Your task to perform on an android device: find photos in the google photos app Image 0: 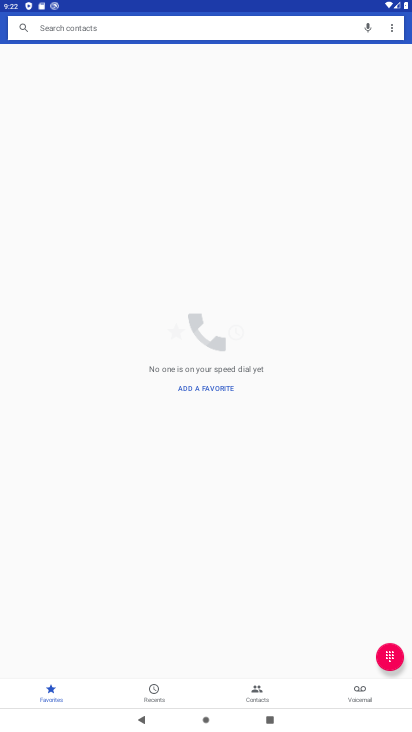
Step 0: press home button
Your task to perform on an android device: find photos in the google photos app Image 1: 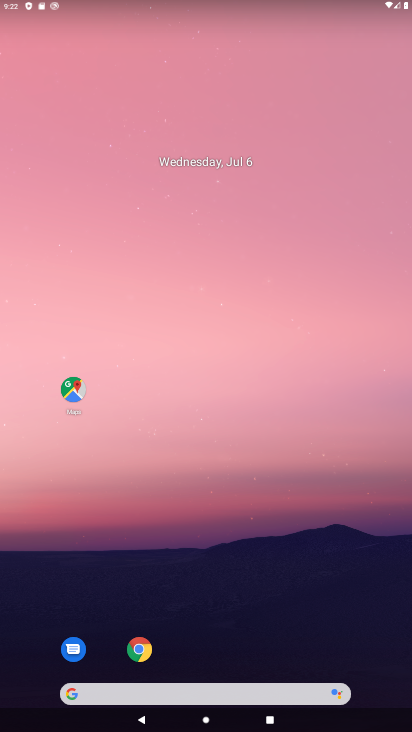
Step 1: drag from (191, 691) to (174, 104)
Your task to perform on an android device: find photos in the google photos app Image 2: 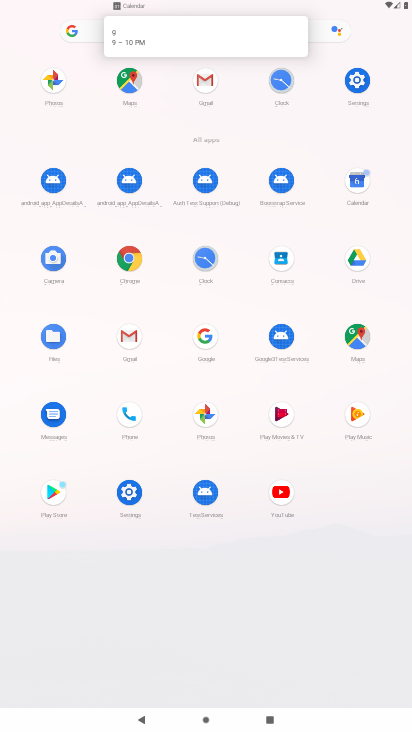
Step 2: click (209, 407)
Your task to perform on an android device: find photos in the google photos app Image 3: 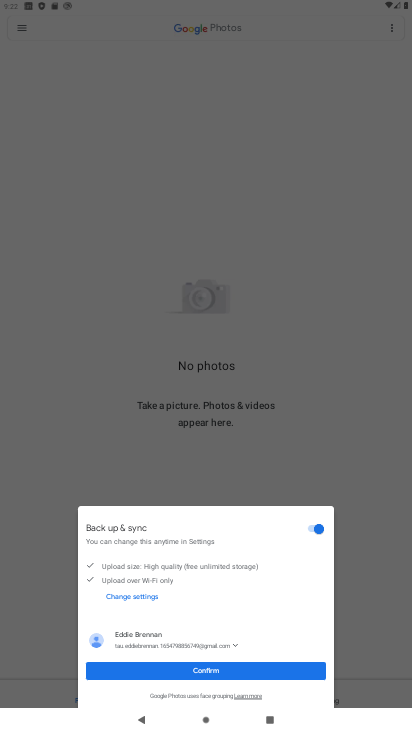
Step 3: click (205, 667)
Your task to perform on an android device: find photos in the google photos app Image 4: 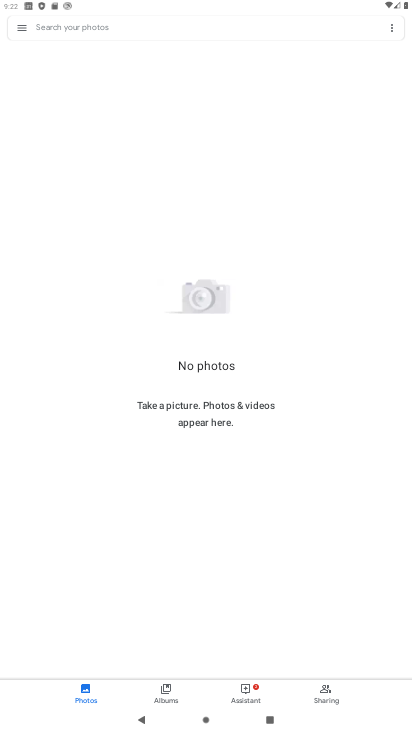
Step 4: click (79, 696)
Your task to perform on an android device: find photos in the google photos app Image 5: 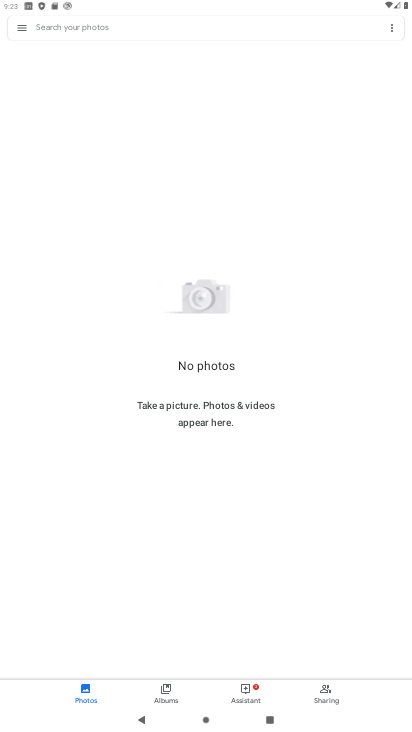
Step 5: task complete